Your task to perform on an android device: choose inbox layout in the gmail app Image 0: 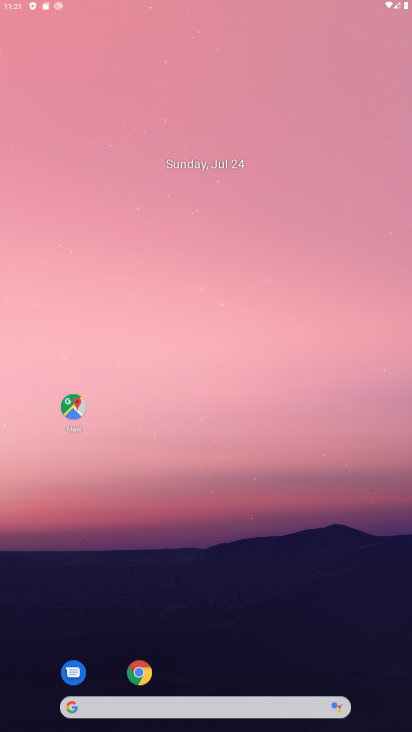
Step 0: press home button
Your task to perform on an android device: choose inbox layout in the gmail app Image 1: 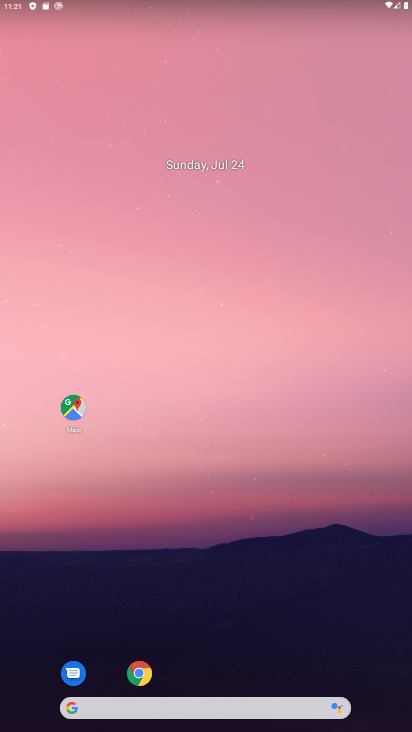
Step 1: drag from (256, 617) to (259, 106)
Your task to perform on an android device: choose inbox layout in the gmail app Image 2: 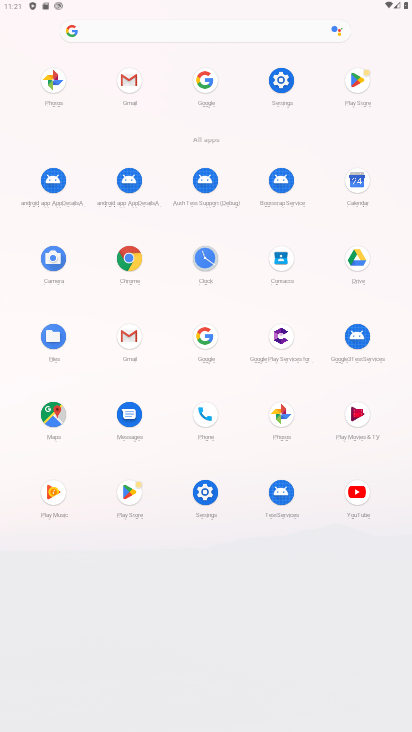
Step 2: click (127, 84)
Your task to perform on an android device: choose inbox layout in the gmail app Image 3: 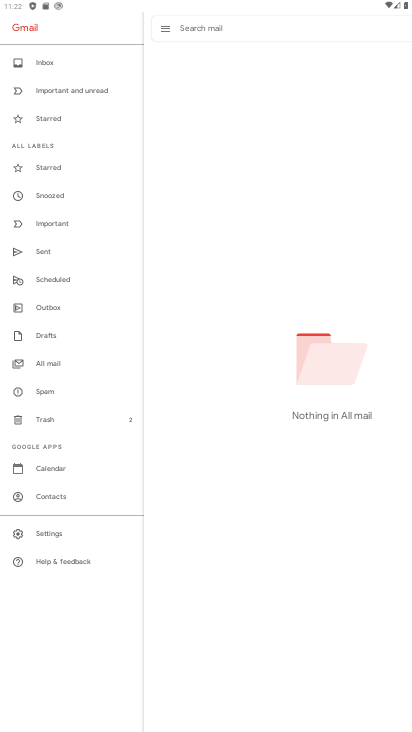
Step 3: click (43, 536)
Your task to perform on an android device: choose inbox layout in the gmail app Image 4: 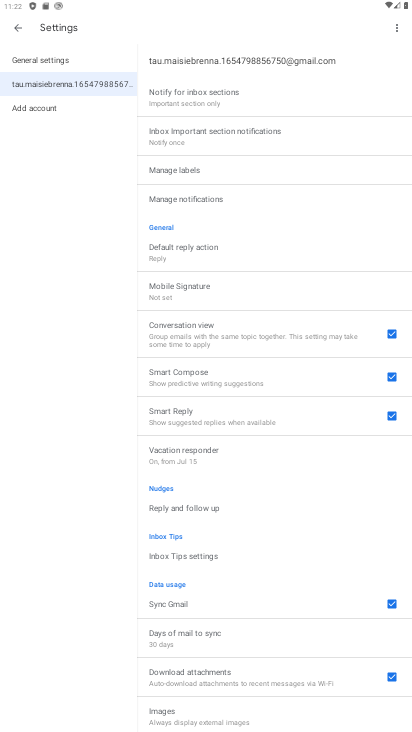
Step 4: drag from (248, 220) to (260, 626)
Your task to perform on an android device: choose inbox layout in the gmail app Image 5: 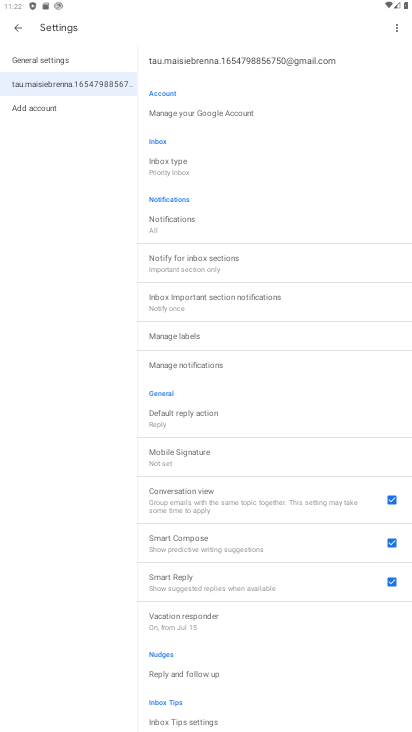
Step 5: click (160, 159)
Your task to perform on an android device: choose inbox layout in the gmail app Image 6: 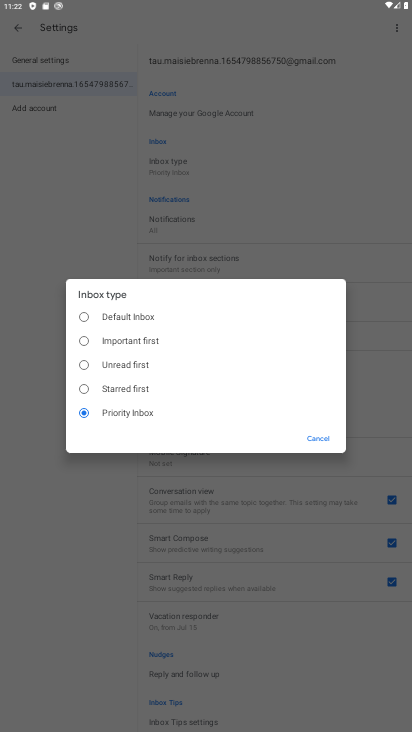
Step 6: click (82, 317)
Your task to perform on an android device: choose inbox layout in the gmail app Image 7: 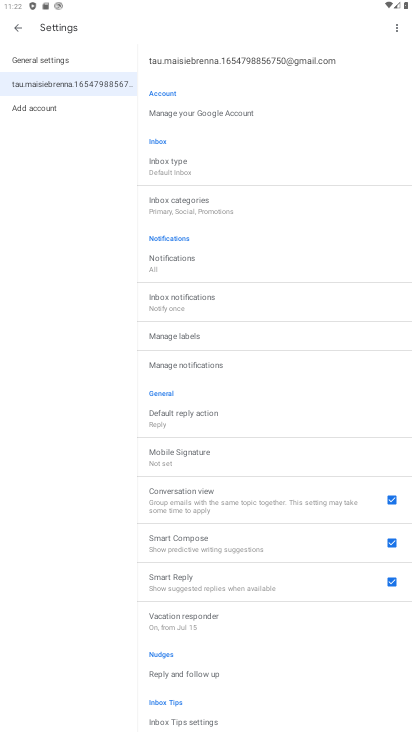
Step 7: task complete